Your task to perform on an android device: Open my contact list Image 0: 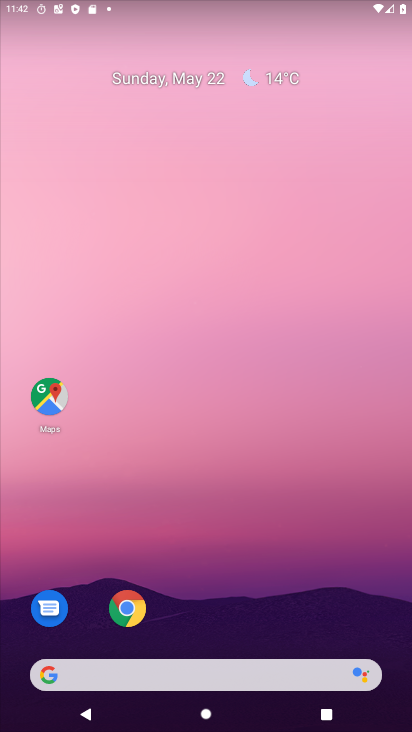
Step 0: drag from (216, 728) to (170, 198)
Your task to perform on an android device: Open my contact list Image 1: 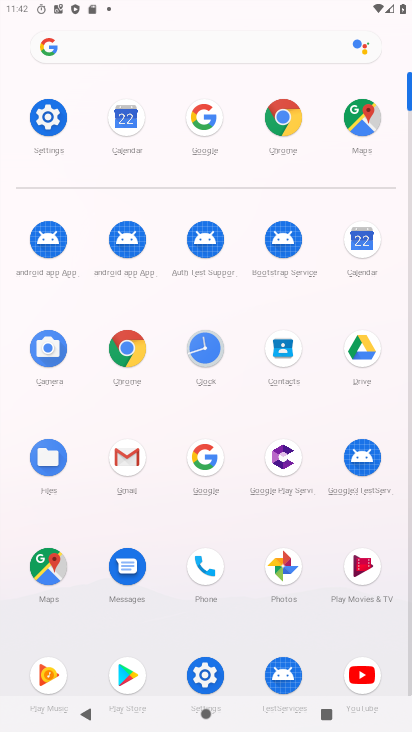
Step 1: click (275, 352)
Your task to perform on an android device: Open my contact list Image 2: 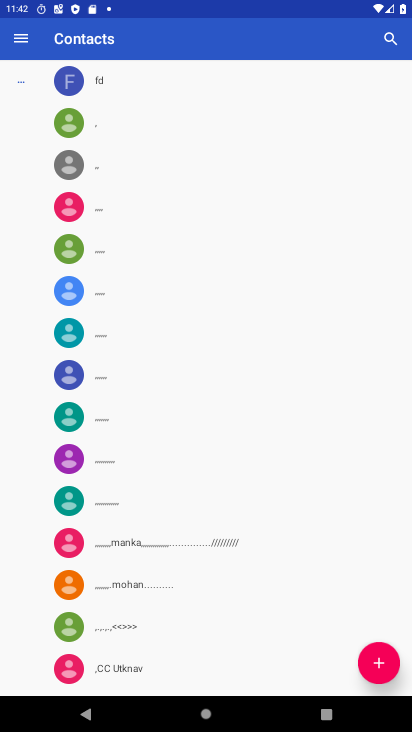
Step 2: task complete